Your task to perform on an android device: Toggle the flashlight Image 0: 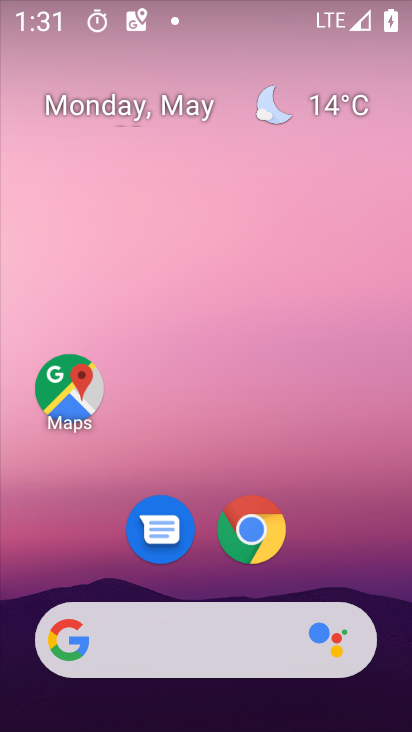
Step 0: drag from (221, 6) to (230, 331)
Your task to perform on an android device: Toggle the flashlight Image 1: 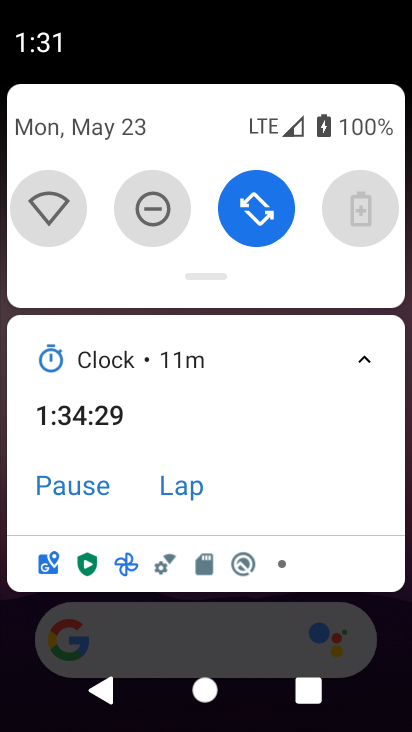
Step 1: drag from (196, 154) to (203, 444)
Your task to perform on an android device: Toggle the flashlight Image 2: 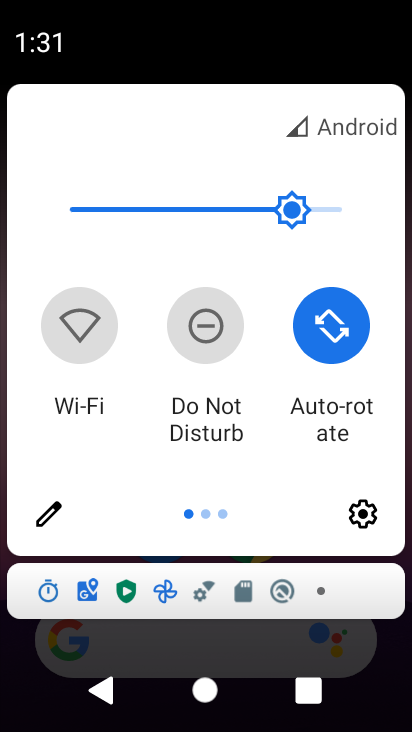
Step 2: click (59, 525)
Your task to perform on an android device: Toggle the flashlight Image 3: 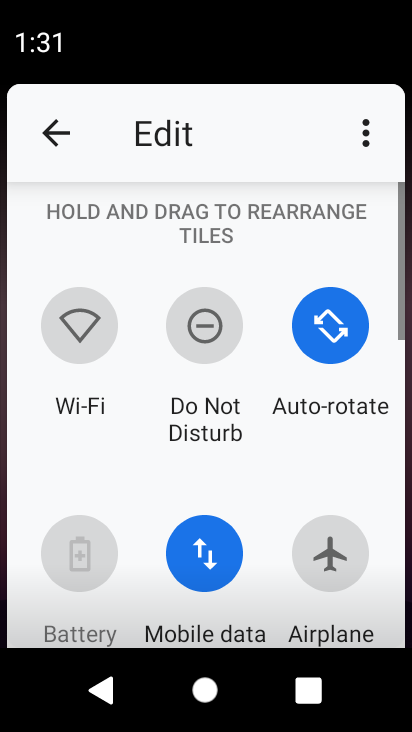
Step 3: task complete